Your task to perform on an android device: Go to settings Image 0: 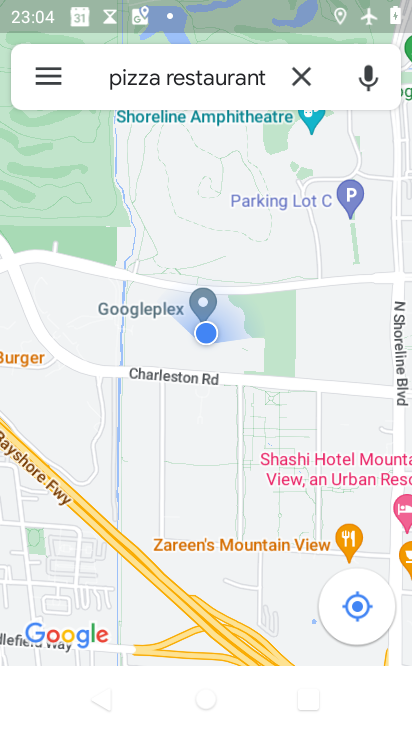
Step 0: press home button
Your task to perform on an android device: Go to settings Image 1: 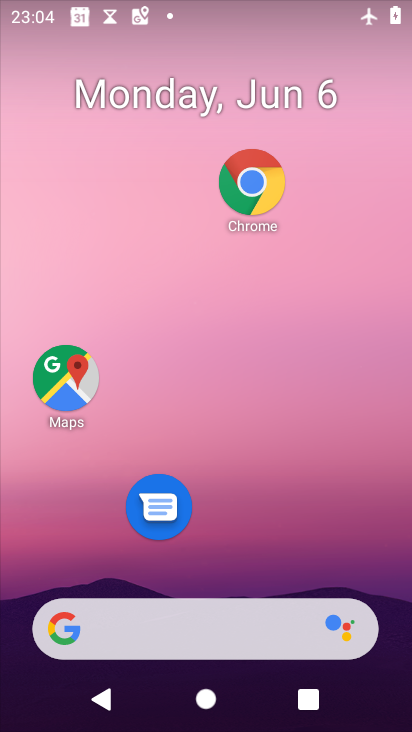
Step 1: drag from (260, 577) to (268, 125)
Your task to perform on an android device: Go to settings Image 2: 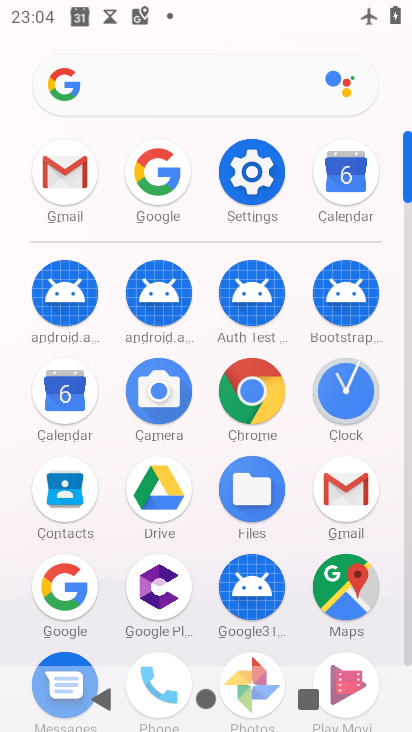
Step 2: click (235, 178)
Your task to perform on an android device: Go to settings Image 3: 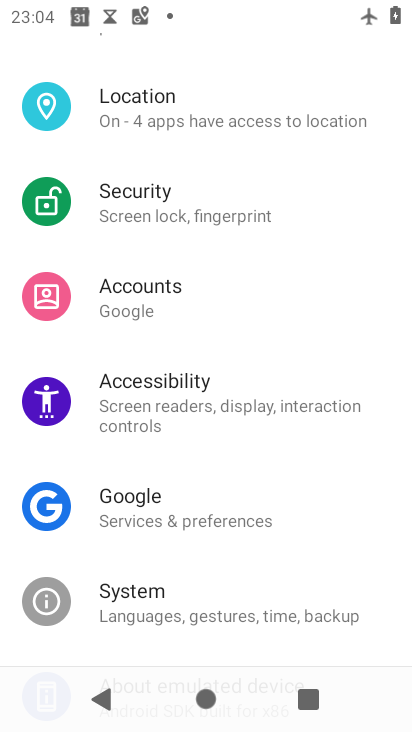
Step 3: task complete